Your task to perform on an android device: Open privacy settings Image 0: 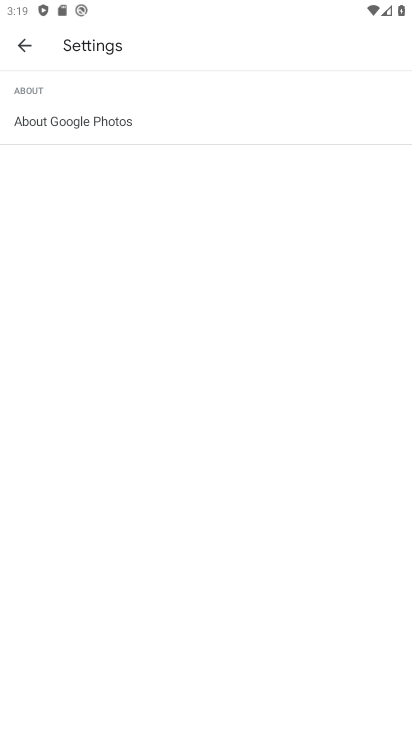
Step 0: press home button
Your task to perform on an android device: Open privacy settings Image 1: 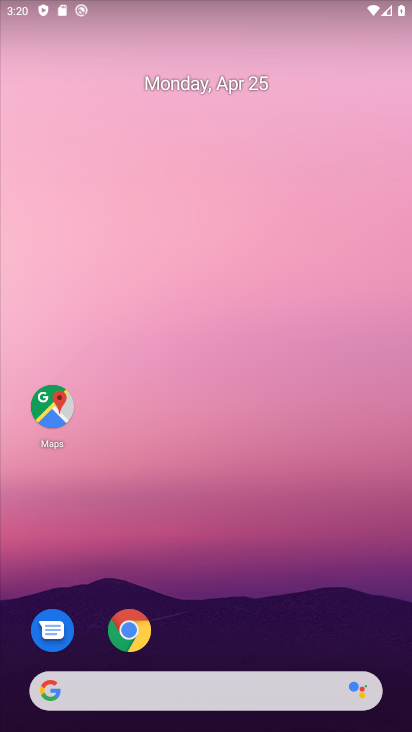
Step 1: drag from (191, 430) to (226, 154)
Your task to perform on an android device: Open privacy settings Image 2: 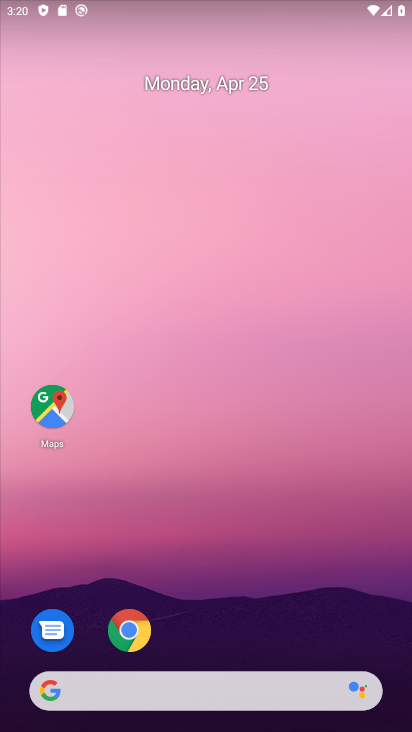
Step 2: drag from (191, 480) to (232, 30)
Your task to perform on an android device: Open privacy settings Image 3: 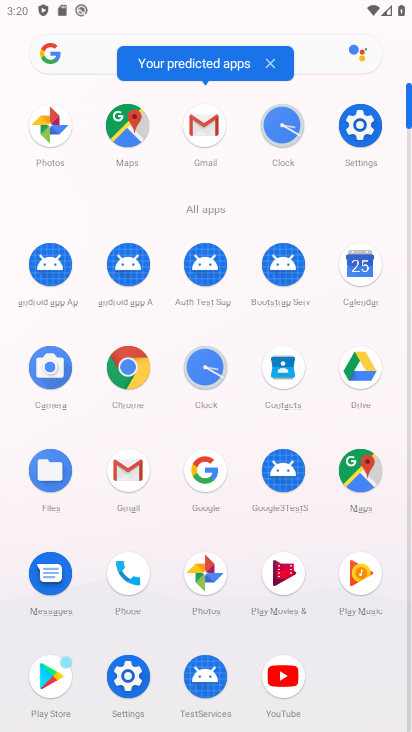
Step 3: click (357, 134)
Your task to perform on an android device: Open privacy settings Image 4: 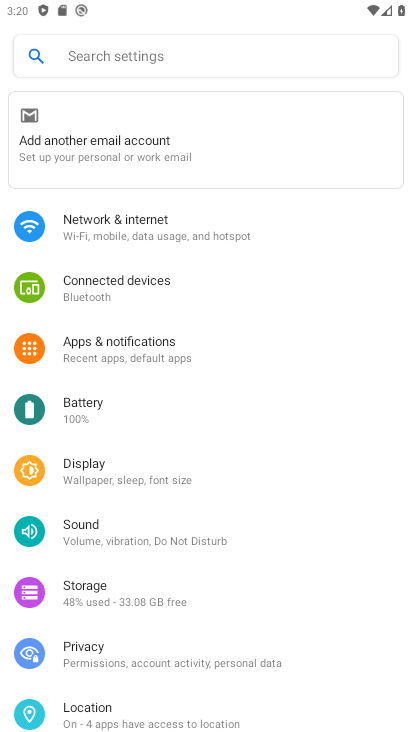
Step 4: click (190, 651)
Your task to perform on an android device: Open privacy settings Image 5: 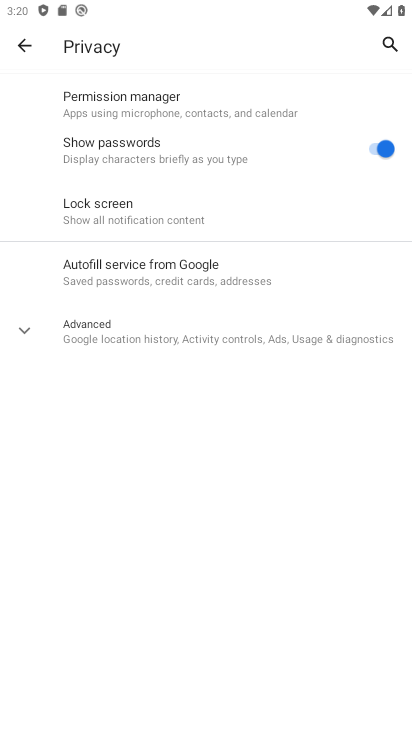
Step 5: task complete